Your task to perform on an android device: turn on translation in the chrome app Image 0: 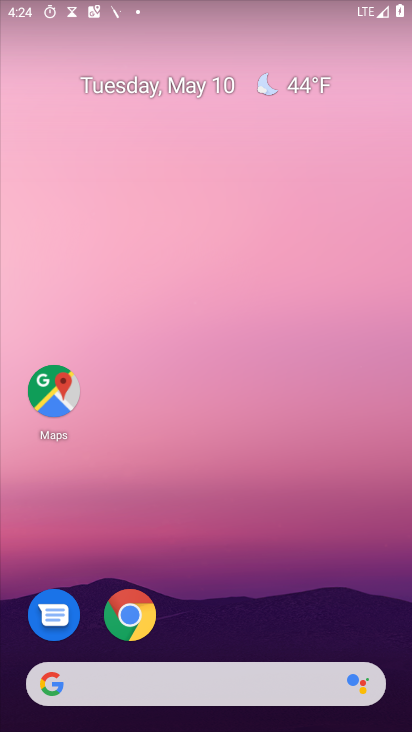
Step 0: drag from (278, 670) to (302, 4)
Your task to perform on an android device: turn on translation in the chrome app Image 1: 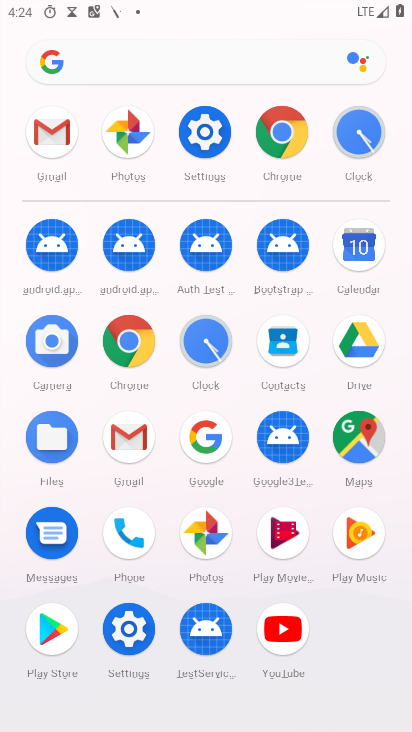
Step 1: click (139, 350)
Your task to perform on an android device: turn on translation in the chrome app Image 2: 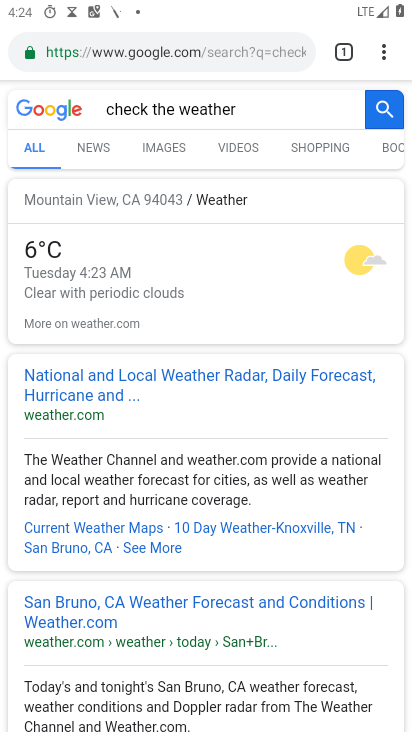
Step 2: drag from (379, 49) to (232, 586)
Your task to perform on an android device: turn on translation in the chrome app Image 3: 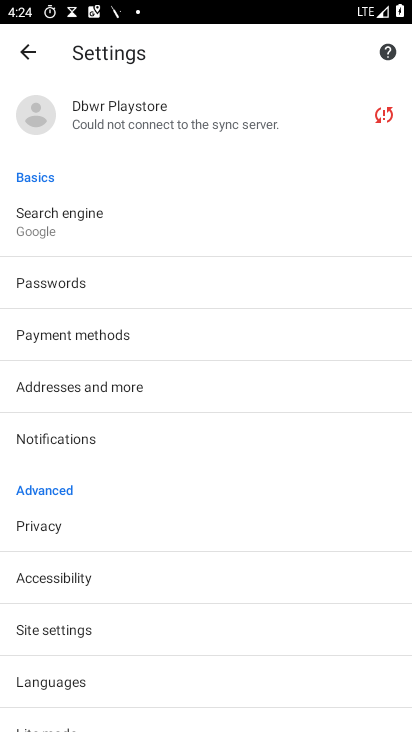
Step 3: drag from (206, 665) to (218, 262)
Your task to perform on an android device: turn on translation in the chrome app Image 4: 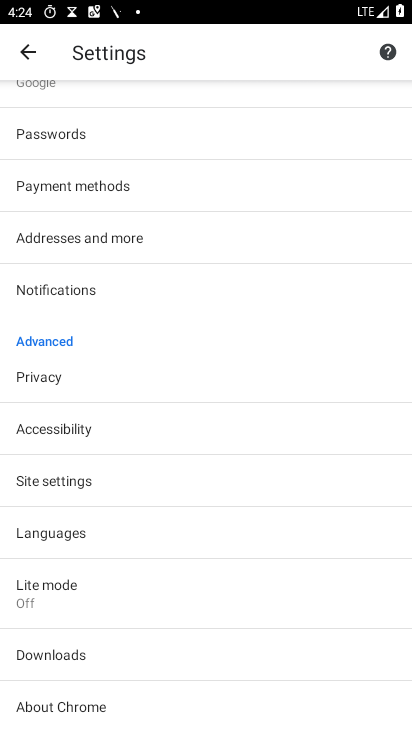
Step 4: click (80, 487)
Your task to perform on an android device: turn on translation in the chrome app Image 5: 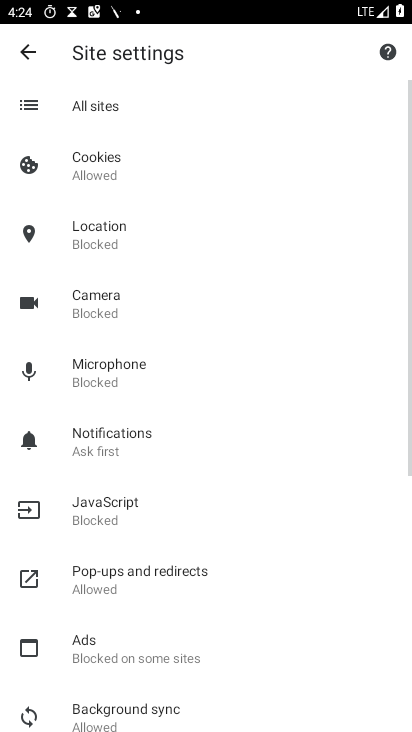
Step 5: drag from (202, 691) to (188, 155)
Your task to perform on an android device: turn on translation in the chrome app Image 6: 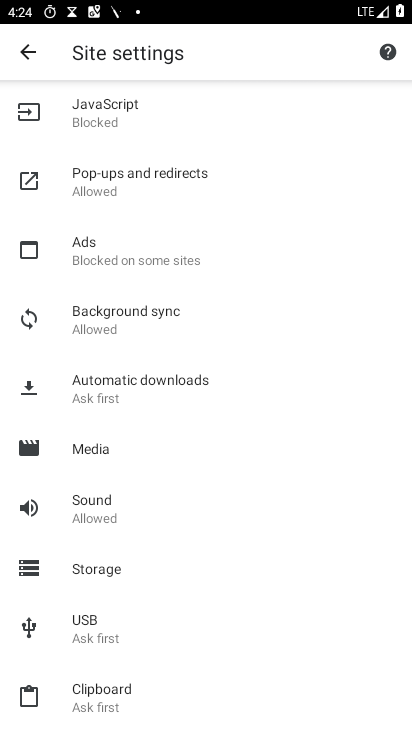
Step 6: drag from (209, 186) to (239, 725)
Your task to perform on an android device: turn on translation in the chrome app Image 7: 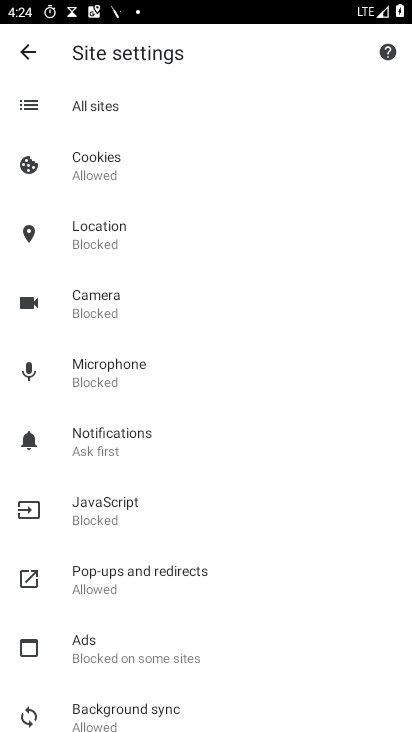
Step 7: press back button
Your task to perform on an android device: turn on translation in the chrome app Image 8: 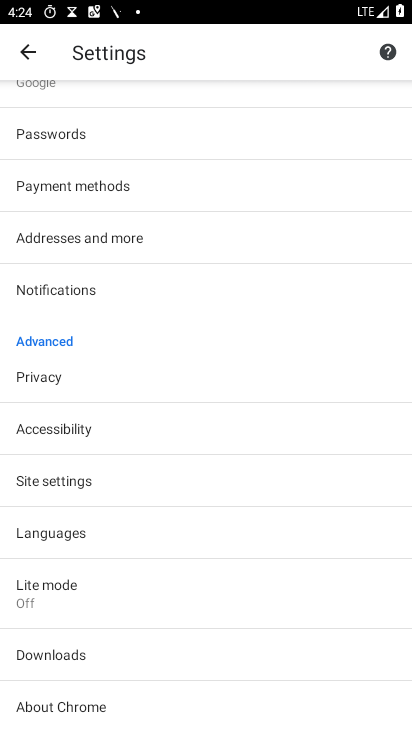
Step 8: click (91, 544)
Your task to perform on an android device: turn on translation in the chrome app Image 9: 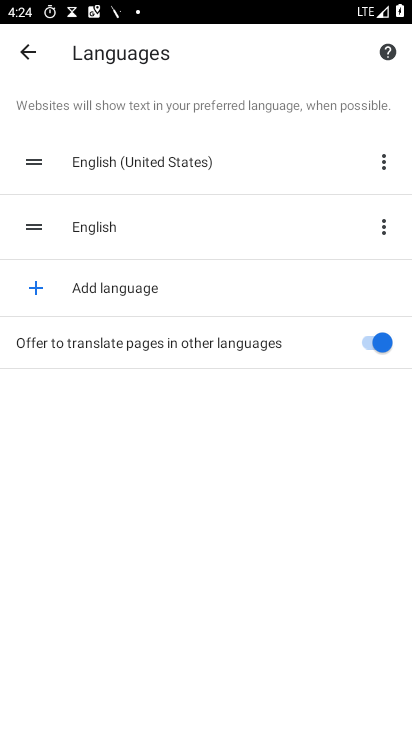
Step 9: task complete